Your task to perform on an android device: Open Google Image 0: 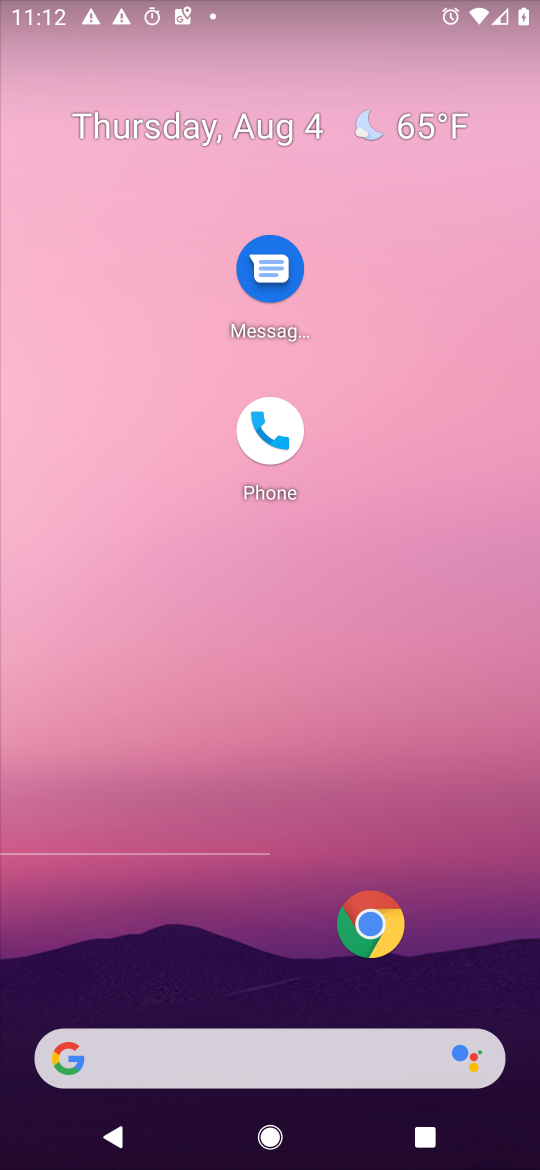
Step 0: drag from (272, 716) to (287, 526)
Your task to perform on an android device: Open Google Image 1: 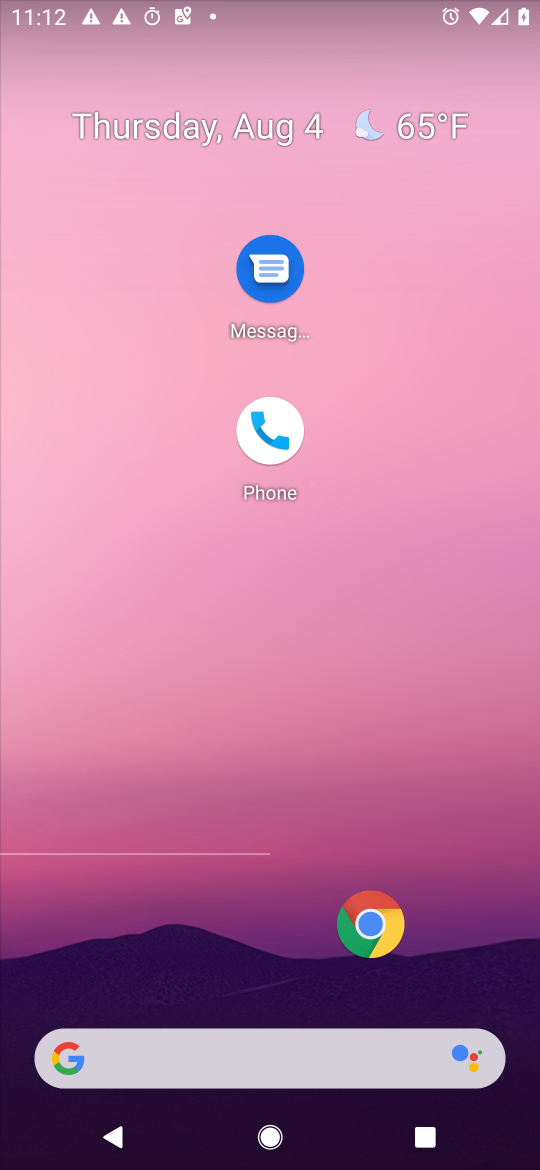
Step 1: drag from (258, 961) to (324, 180)
Your task to perform on an android device: Open Google Image 2: 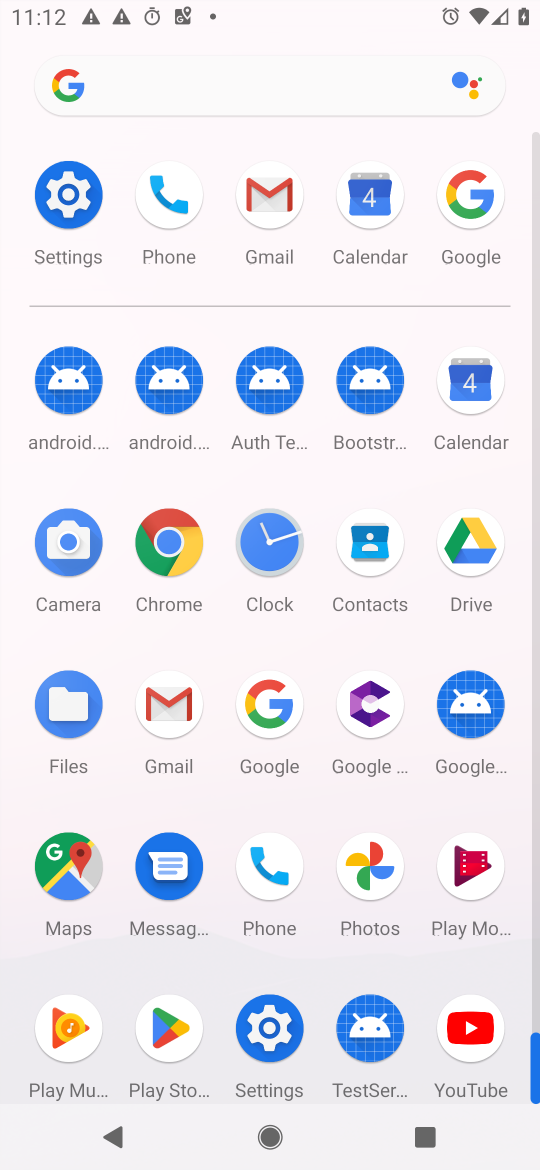
Step 2: click (259, 695)
Your task to perform on an android device: Open Google Image 3: 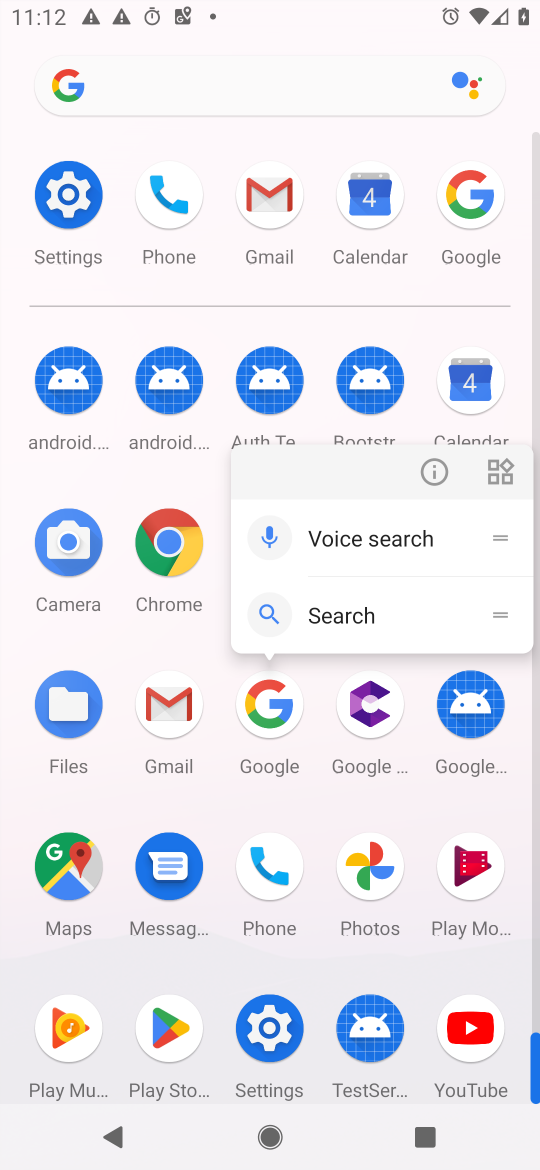
Step 3: click (411, 470)
Your task to perform on an android device: Open Google Image 4: 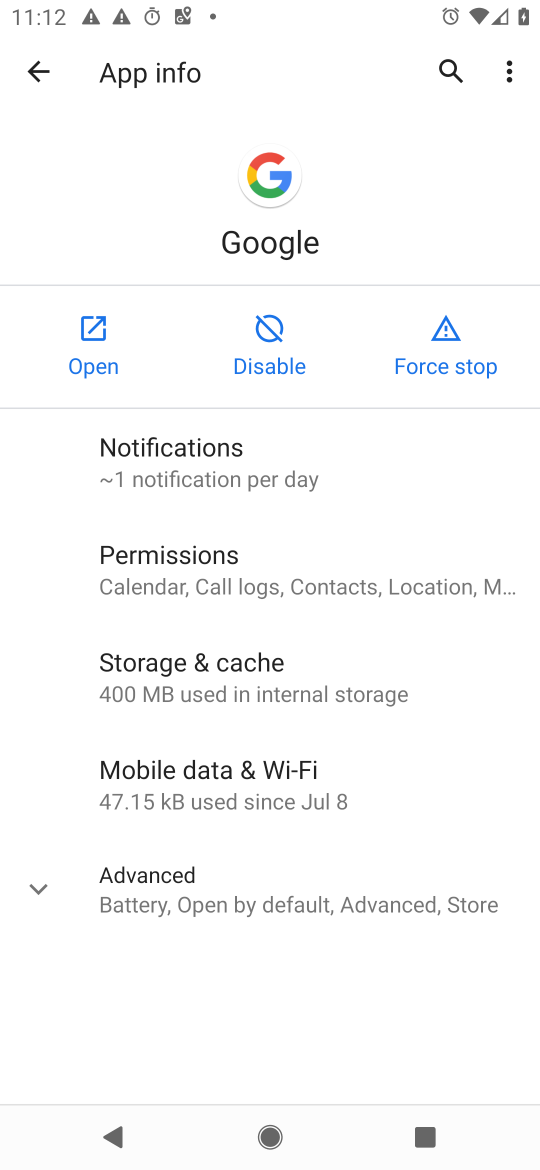
Step 4: click (95, 329)
Your task to perform on an android device: Open Google Image 5: 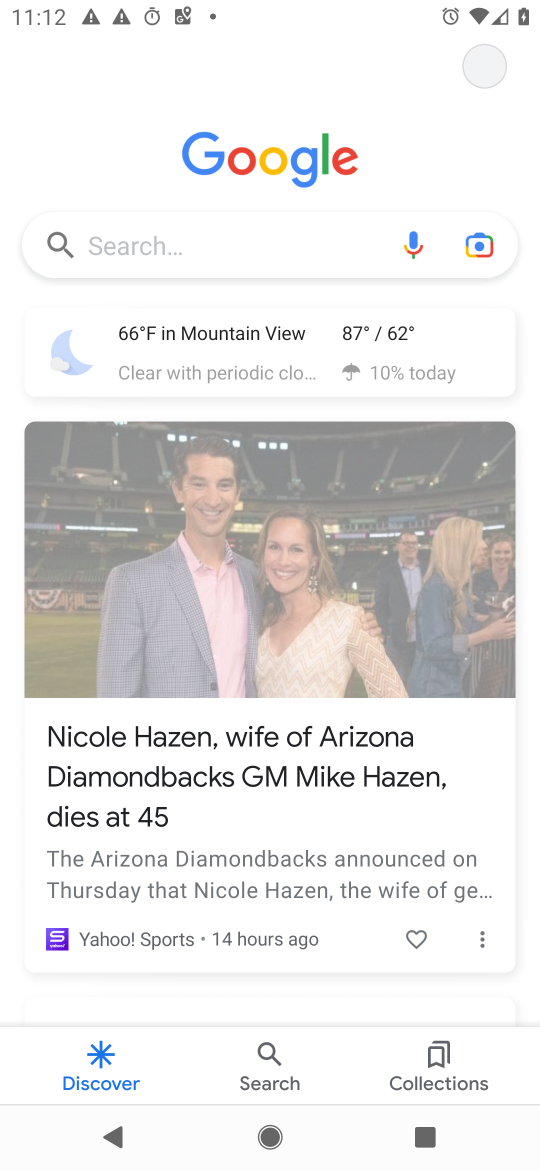
Step 5: task complete